Your task to perform on an android device: Is it going to rain tomorrow? Image 0: 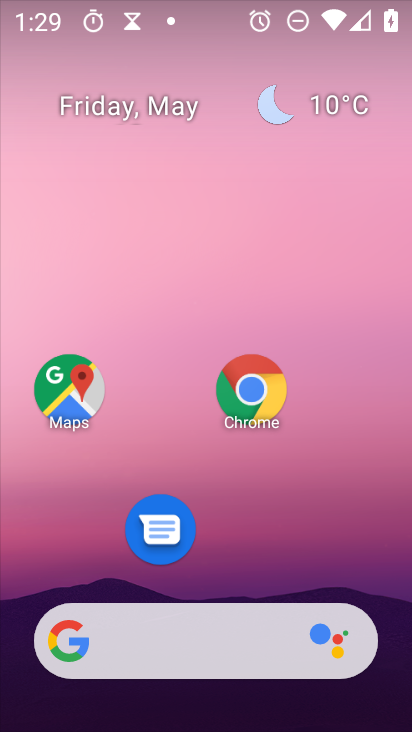
Step 0: click (329, 98)
Your task to perform on an android device: Is it going to rain tomorrow? Image 1: 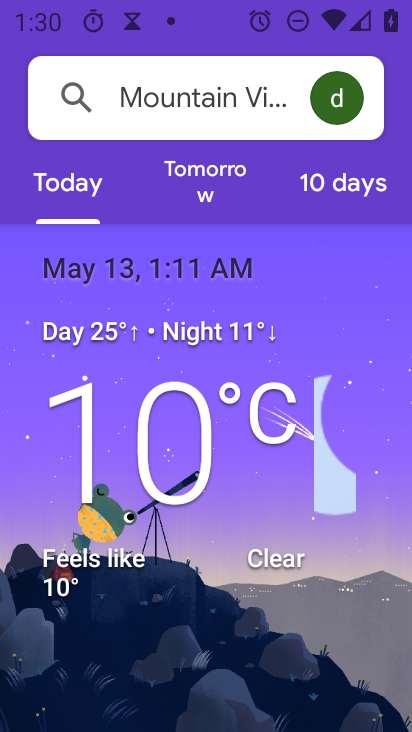
Step 1: task complete